Your task to perform on an android device: Open notification settings Image 0: 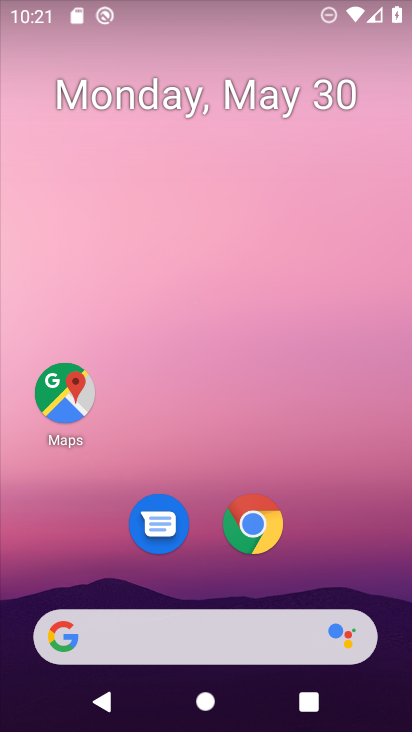
Step 0: drag from (308, 547) to (266, 122)
Your task to perform on an android device: Open notification settings Image 1: 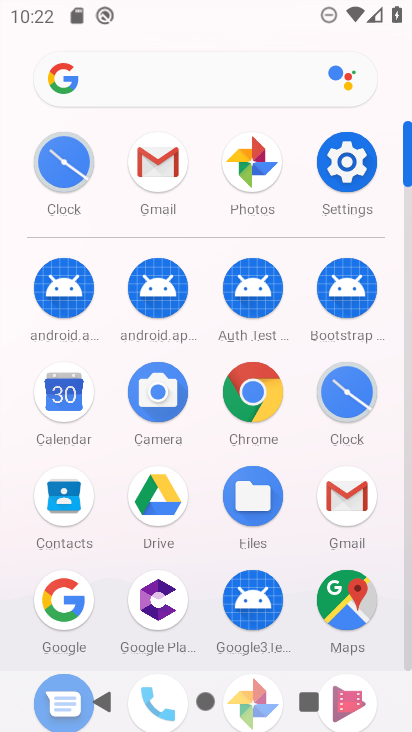
Step 1: click (336, 165)
Your task to perform on an android device: Open notification settings Image 2: 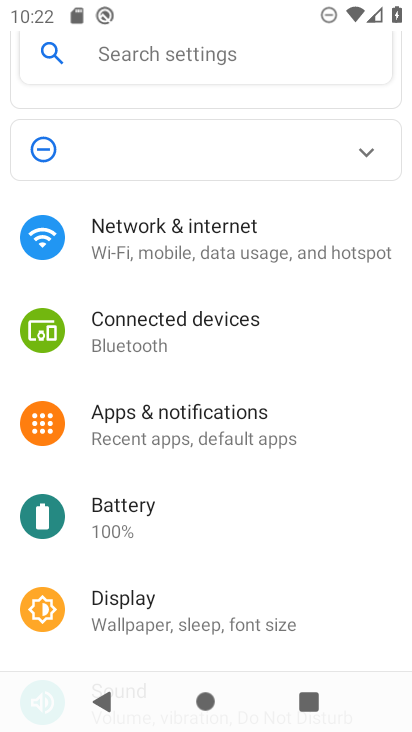
Step 2: click (222, 421)
Your task to perform on an android device: Open notification settings Image 3: 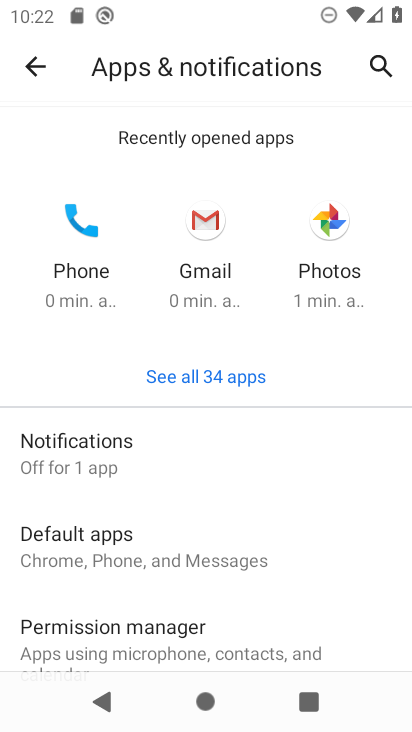
Step 3: click (220, 439)
Your task to perform on an android device: Open notification settings Image 4: 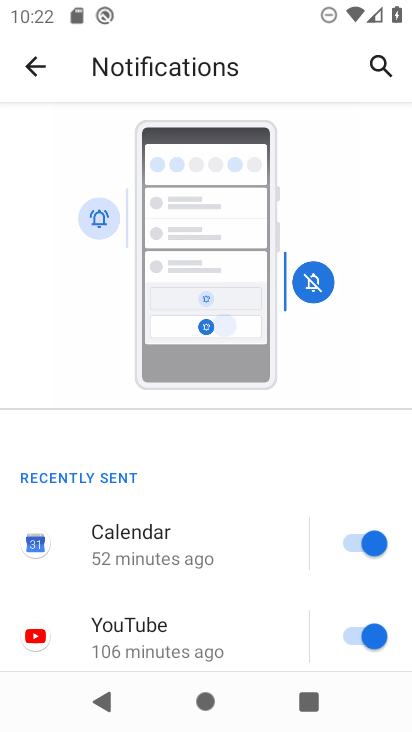
Step 4: task complete